Your task to perform on an android device: open app "HBO Max: Stream TV & Movies" (install if not already installed) and go to login screen Image 0: 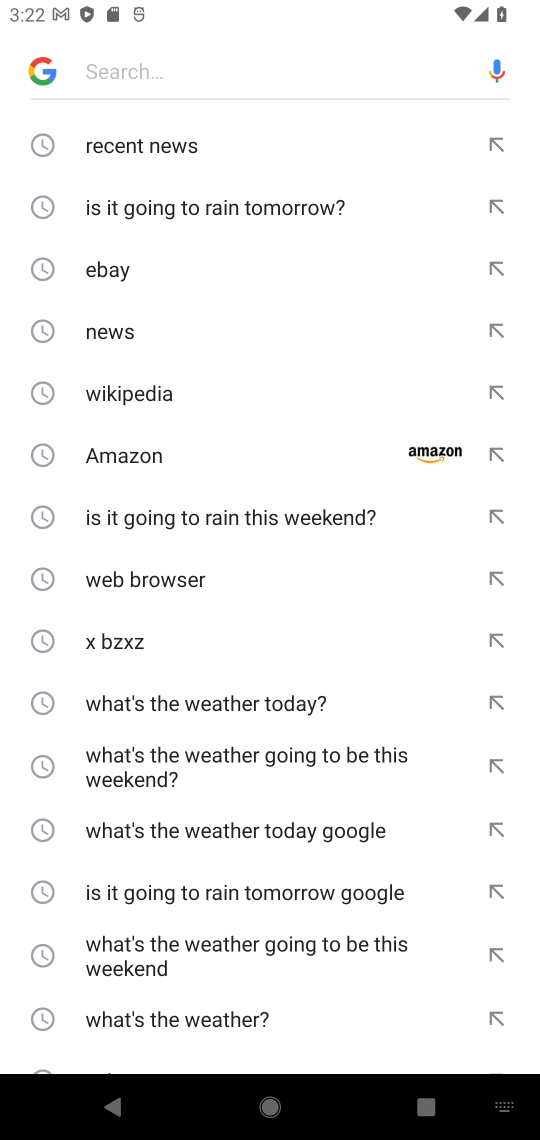
Step 0: press home button
Your task to perform on an android device: open app "HBO Max: Stream TV & Movies" (install if not already installed) and go to login screen Image 1: 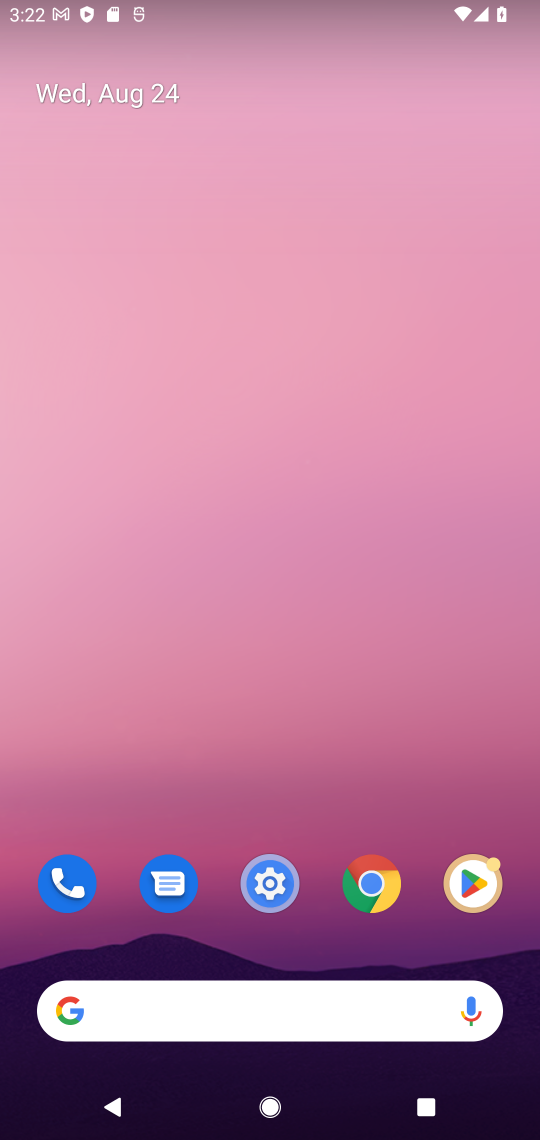
Step 1: click (264, 298)
Your task to perform on an android device: open app "HBO Max: Stream TV & Movies" (install if not already installed) and go to login screen Image 2: 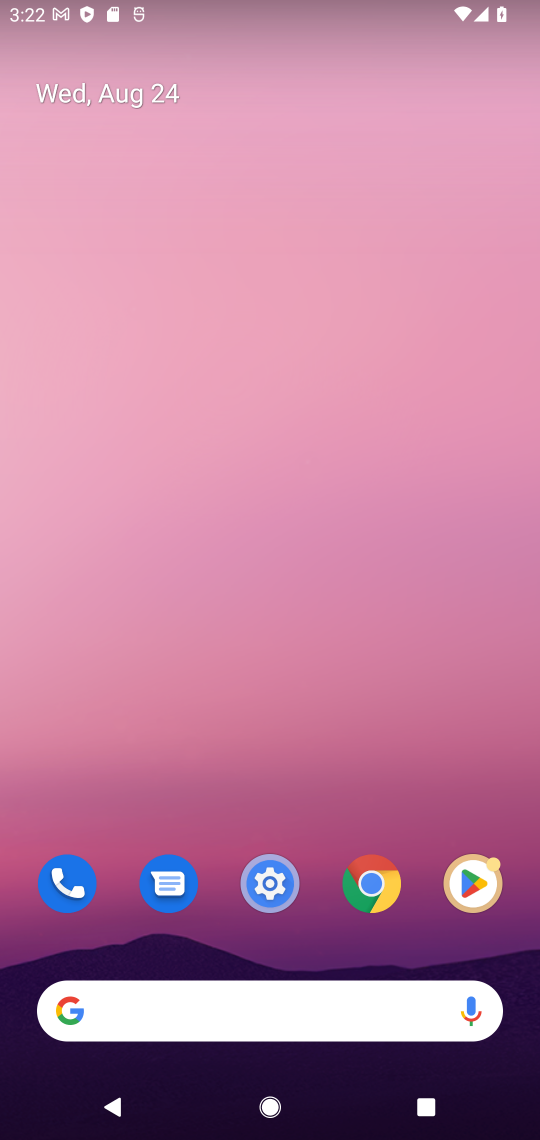
Step 2: drag from (216, 809) to (216, 333)
Your task to perform on an android device: open app "HBO Max: Stream TV & Movies" (install if not already installed) and go to login screen Image 3: 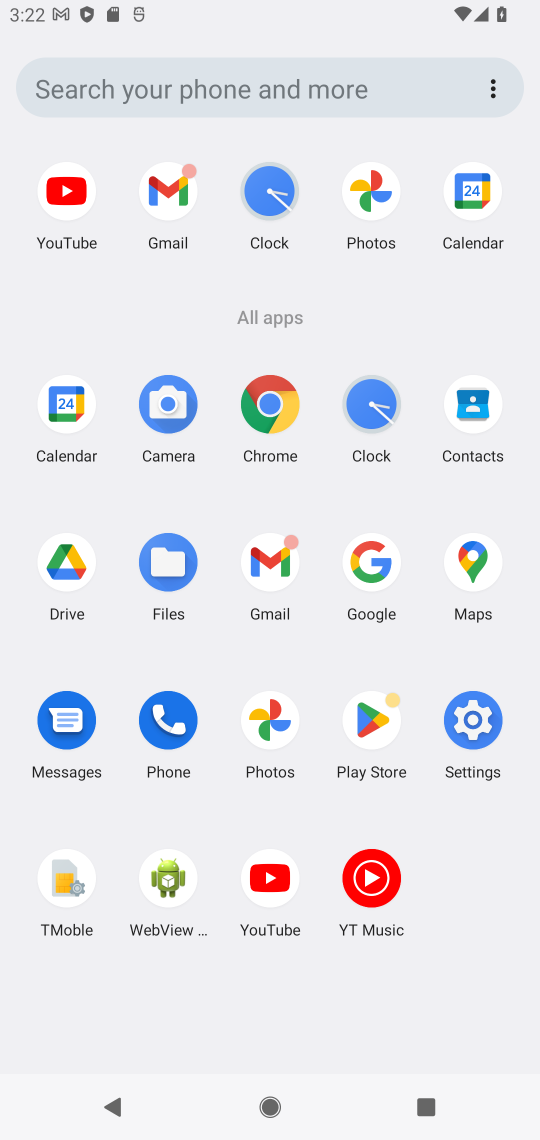
Step 3: click (365, 728)
Your task to perform on an android device: open app "HBO Max: Stream TV & Movies" (install if not already installed) and go to login screen Image 4: 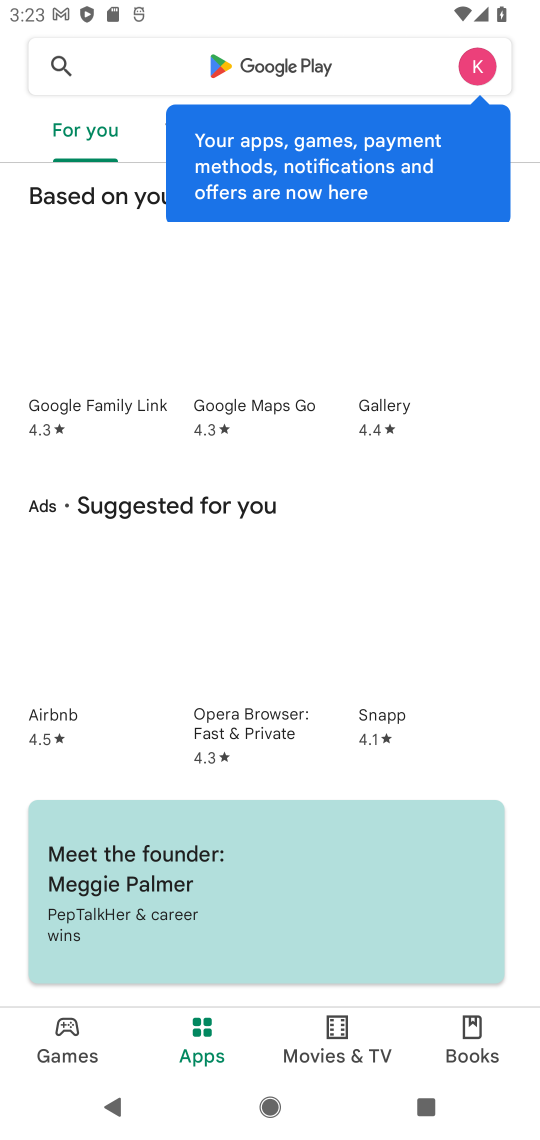
Step 4: click (247, 66)
Your task to perform on an android device: open app "HBO Max: Stream TV & Movies" (install if not already installed) and go to login screen Image 5: 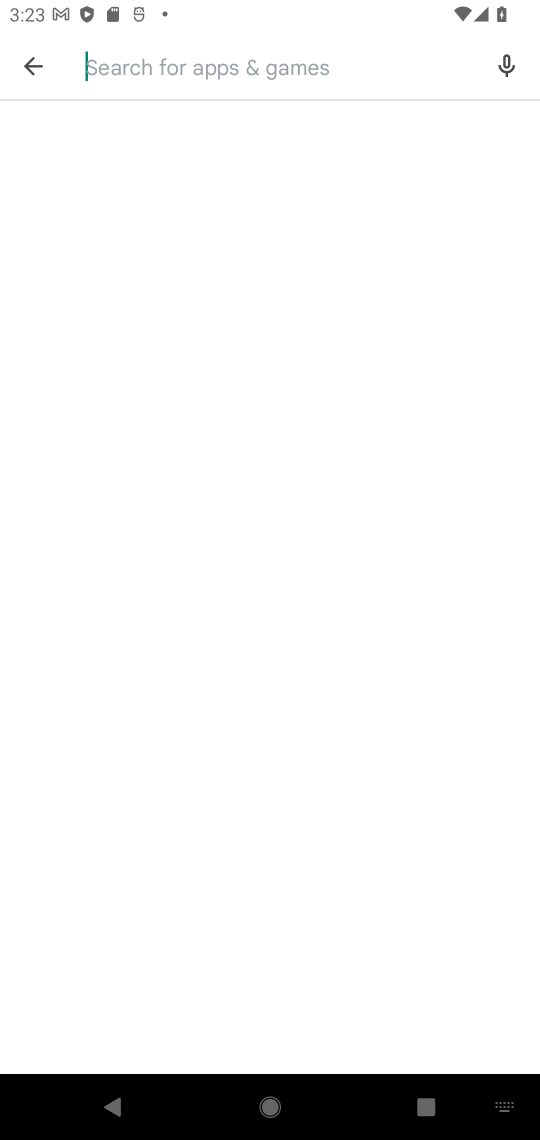
Step 5: type "HBO Max: Stream TV & Movies"
Your task to perform on an android device: open app "HBO Max: Stream TV & Movies" (install if not already installed) and go to login screen Image 6: 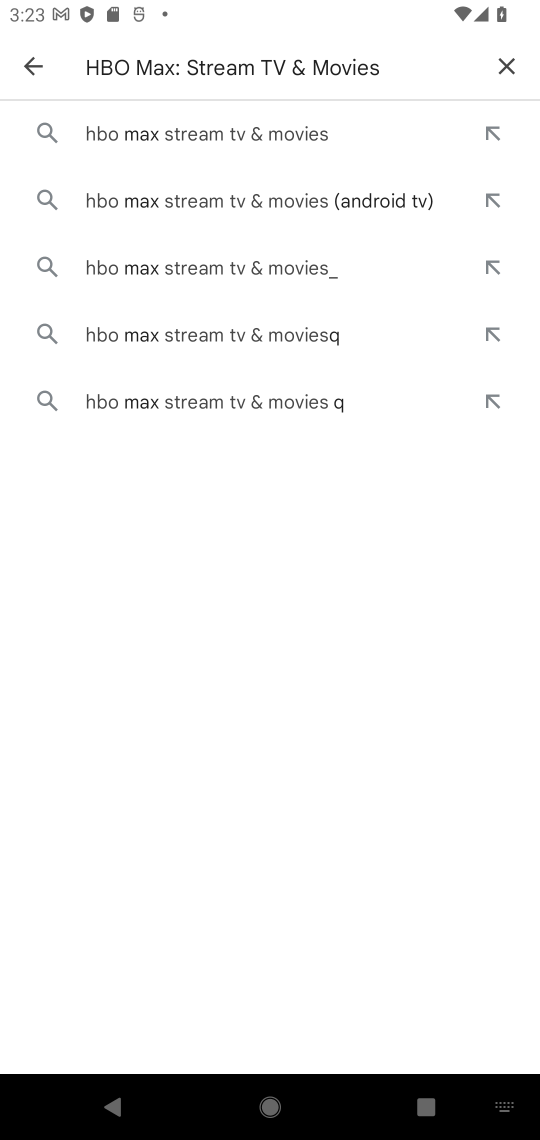
Step 6: click (115, 131)
Your task to perform on an android device: open app "HBO Max: Stream TV & Movies" (install if not already installed) and go to login screen Image 7: 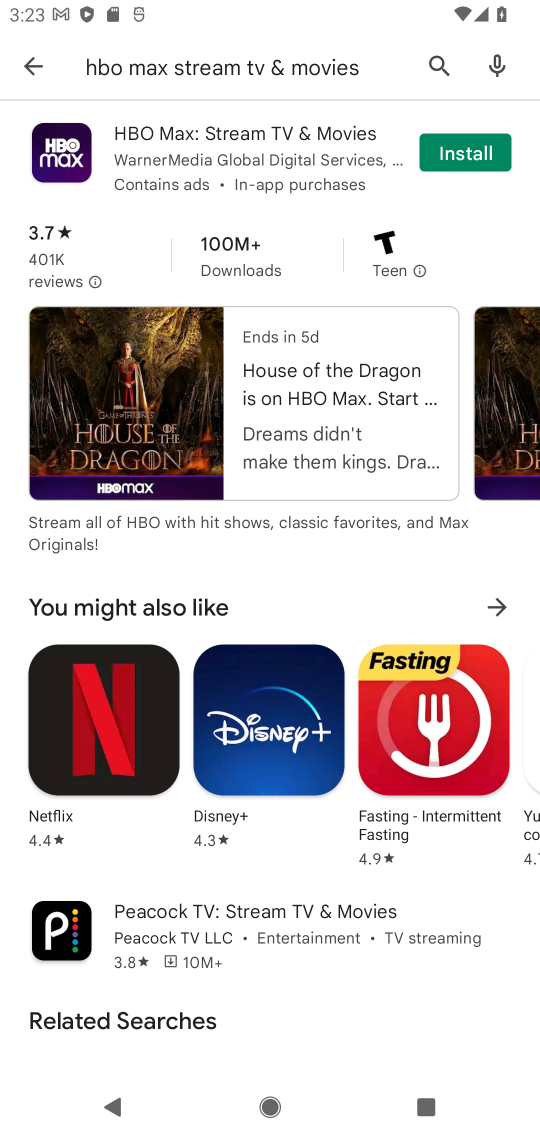
Step 7: click (457, 155)
Your task to perform on an android device: open app "HBO Max: Stream TV & Movies" (install if not already installed) and go to login screen Image 8: 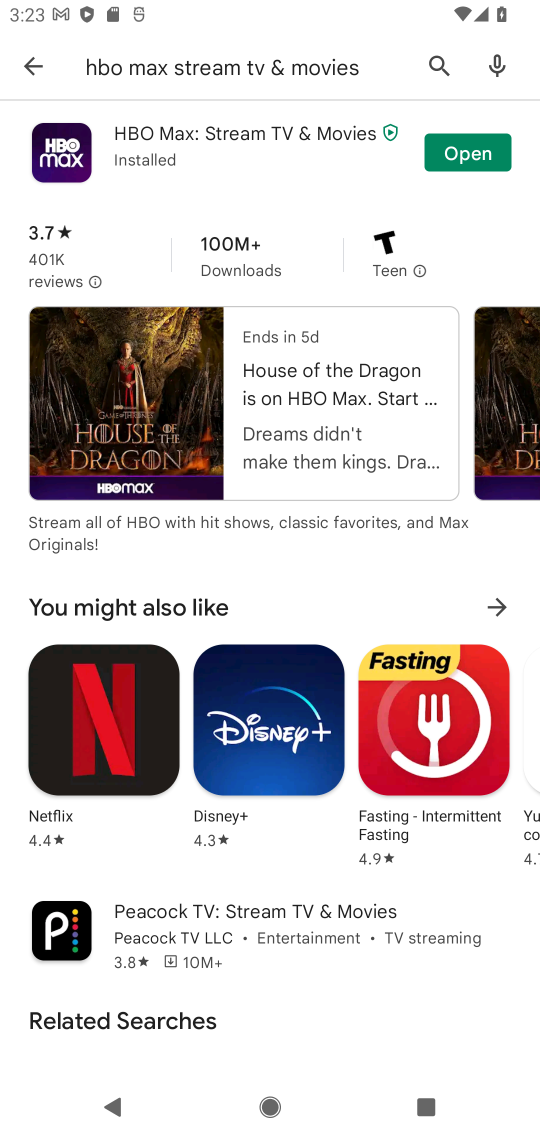
Step 8: click (456, 146)
Your task to perform on an android device: open app "HBO Max: Stream TV & Movies" (install if not already installed) and go to login screen Image 9: 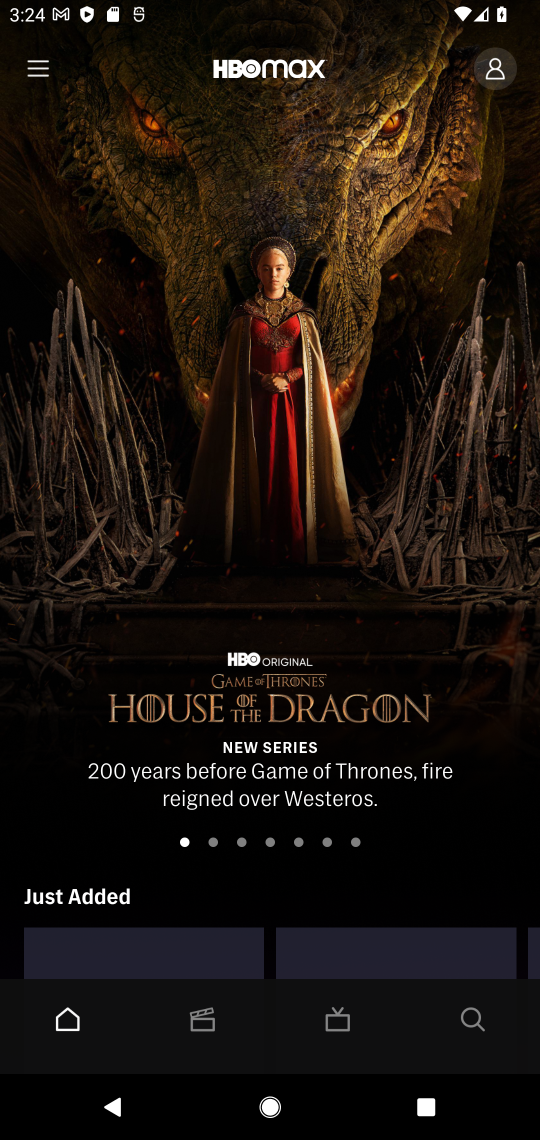
Step 9: task complete